Your task to perform on an android device: create a new album in the google photos Image 0: 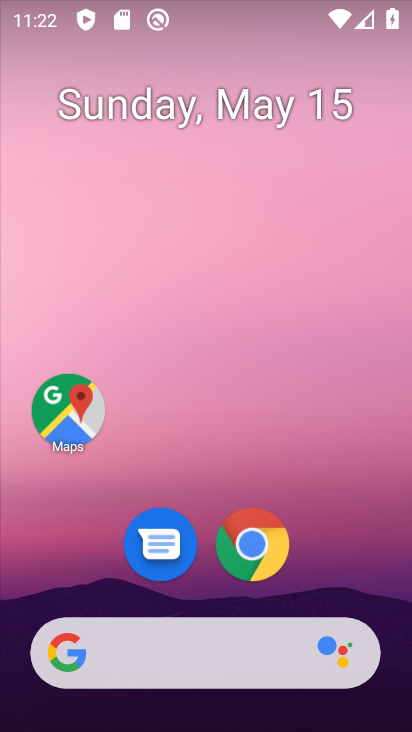
Step 0: drag from (313, 566) to (262, 15)
Your task to perform on an android device: create a new album in the google photos Image 1: 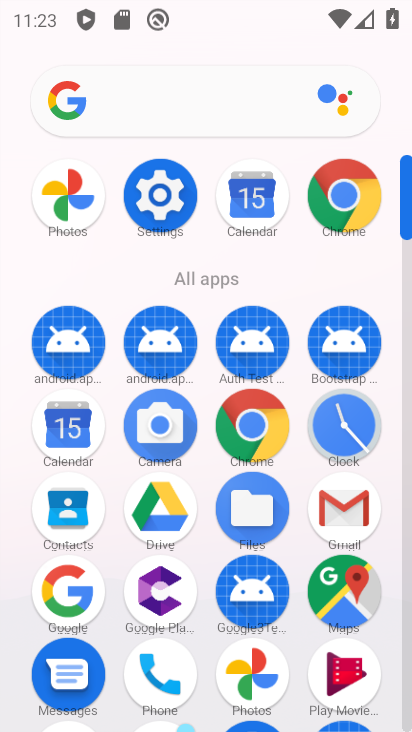
Step 1: click (78, 200)
Your task to perform on an android device: create a new album in the google photos Image 2: 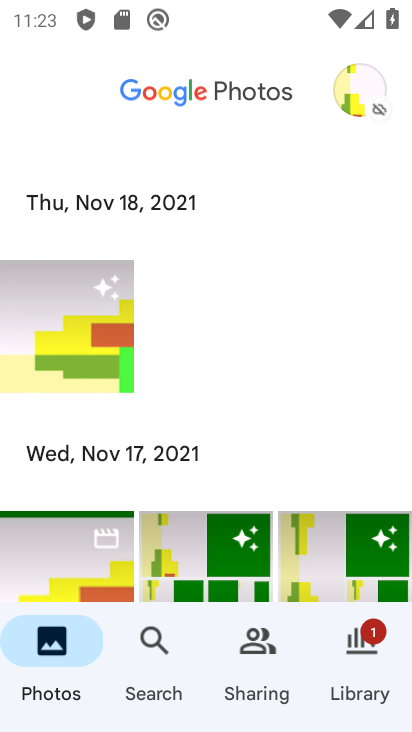
Step 2: click (355, 655)
Your task to perform on an android device: create a new album in the google photos Image 3: 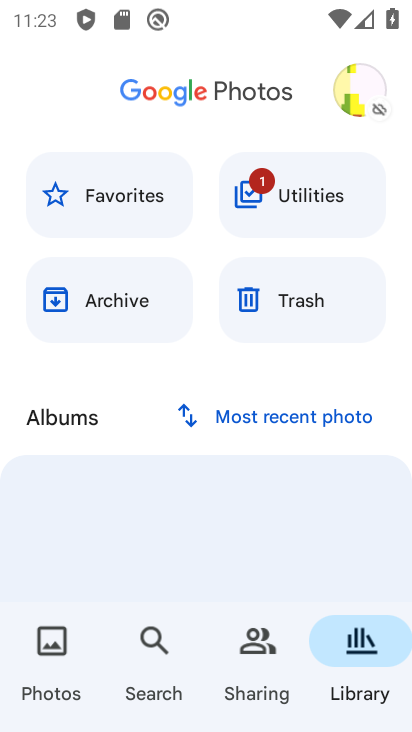
Step 3: click (135, 473)
Your task to perform on an android device: create a new album in the google photos Image 4: 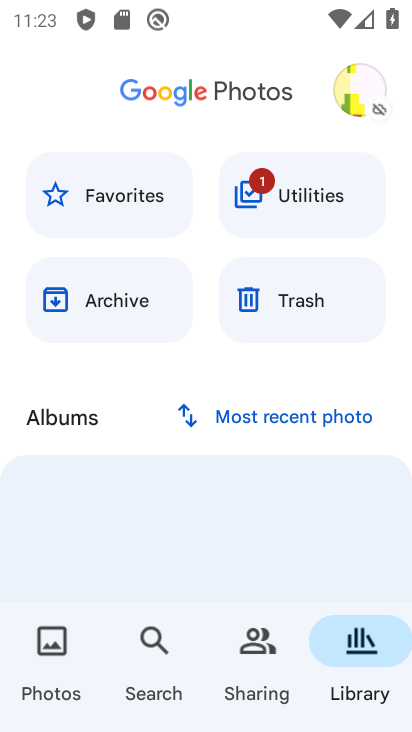
Step 4: drag from (153, 279) to (153, 234)
Your task to perform on an android device: create a new album in the google photos Image 5: 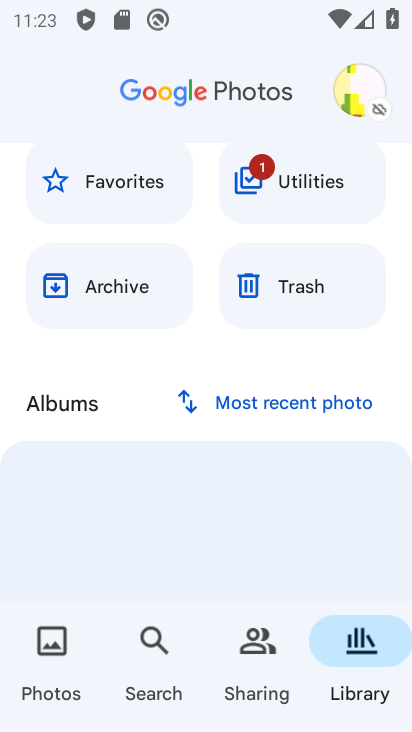
Step 5: drag from (156, 396) to (180, 59)
Your task to perform on an android device: create a new album in the google photos Image 6: 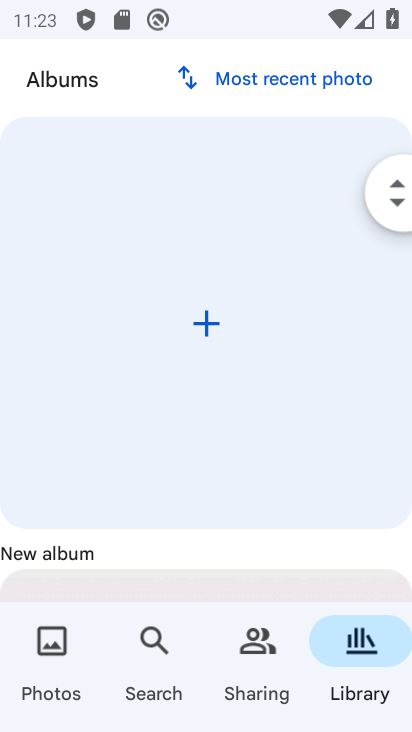
Step 6: click (213, 324)
Your task to perform on an android device: create a new album in the google photos Image 7: 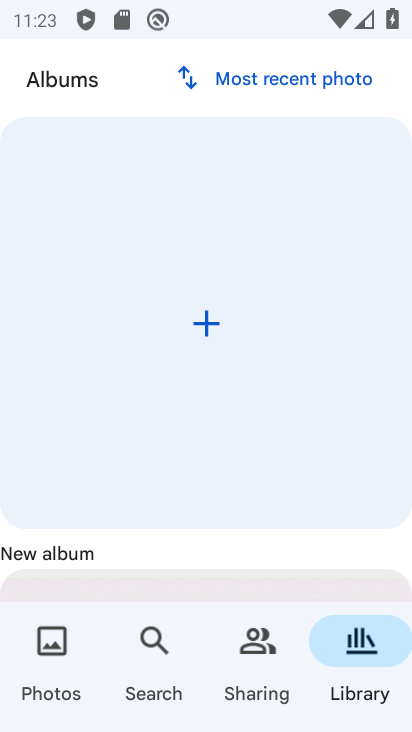
Step 7: click (213, 324)
Your task to perform on an android device: create a new album in the google photos Image 8: 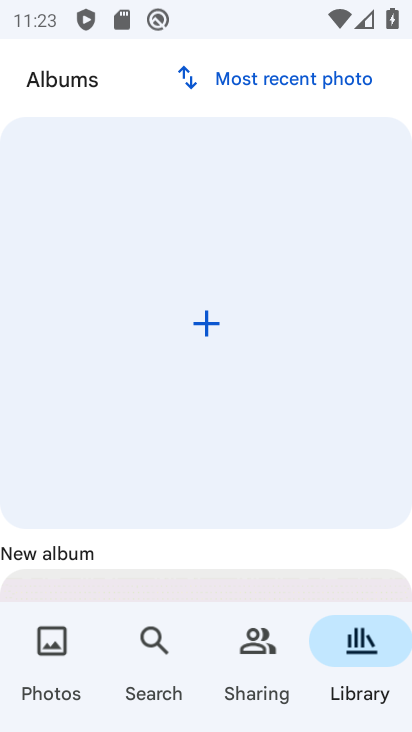
Step 8: click (213, 324)
Your task to perform on an android device: create a new album in the google photos Image 9: 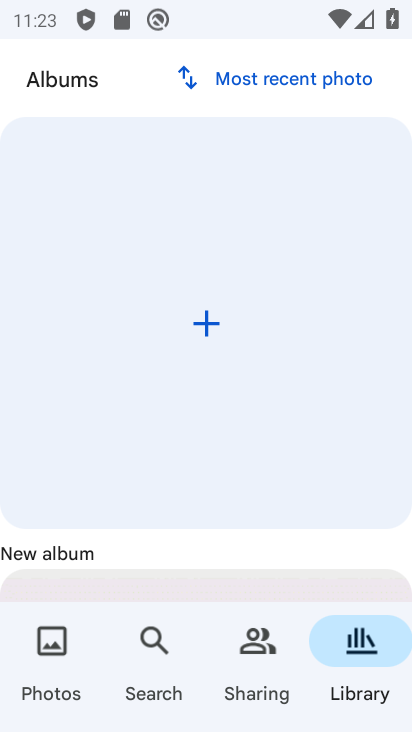
Step 9: click (213, 324)
Your task to perform on an android device: create a new album in the google photos Image 10: 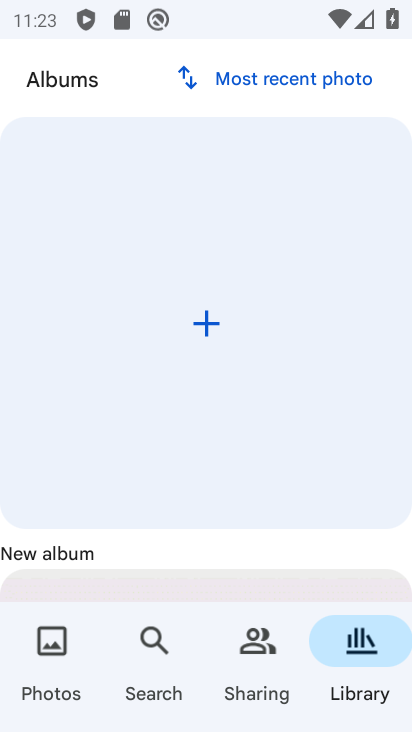
Step 10: click (210, 327)
Your task to perform on an android device: create a new album in the google photos Image 11: 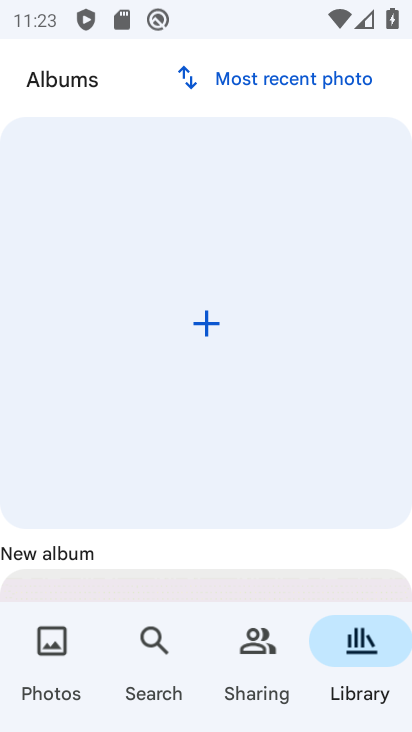
Step 11: task complete